Your task to perform on an android device: turn vacation reply on in the gmail app Image 0: 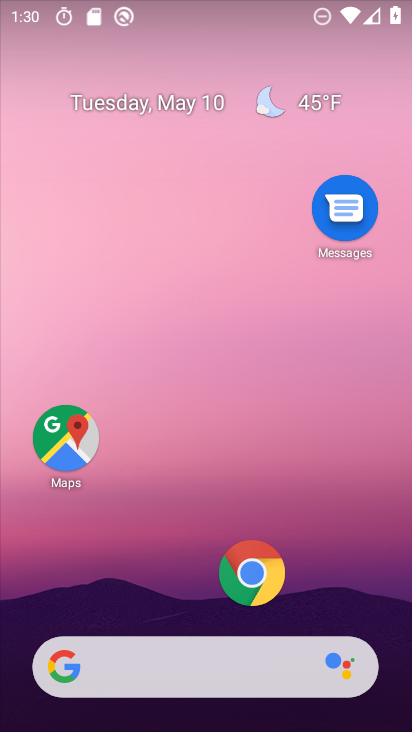
Step 0: drag from (196, 603) to (310, 125)
Your task to perform on an android device: turn vacation reply on in the gmail app Image 1: 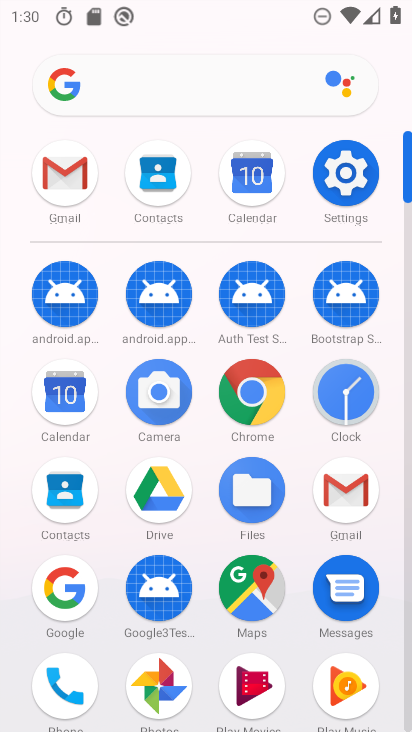
Step 1: click (330, 496)
Your task to perform on an android device: turn vacation reply on in the gmail app Image 2: 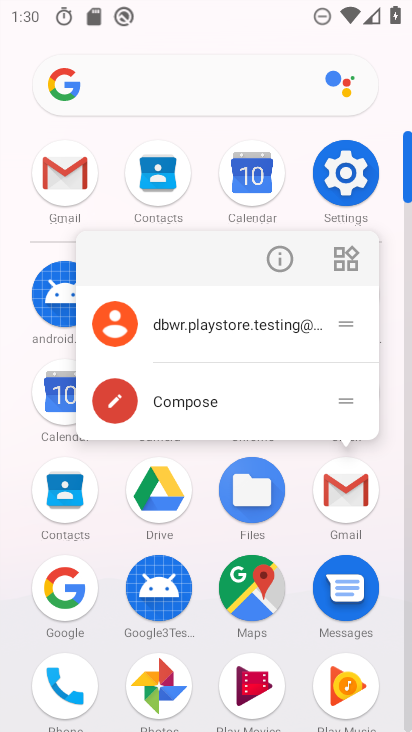
Step 2: click (288, 240)
Your task to perform on an android device: turn vacation reply on in the gmail app Image 3: 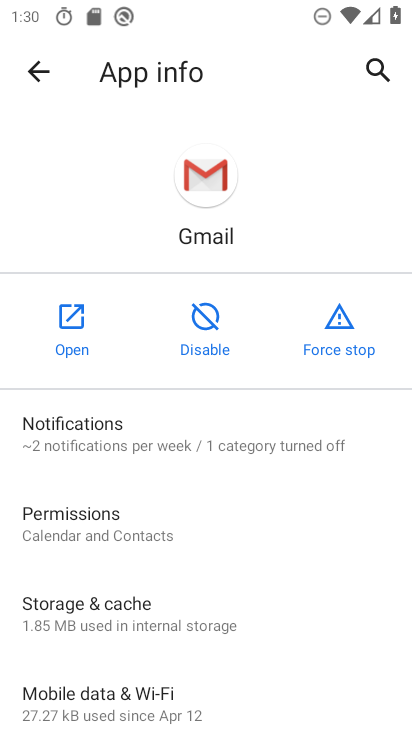
Step 3: click (86, 339)
Your task to perform on an android device: turn vacation reply on in the gmail app Image 4: 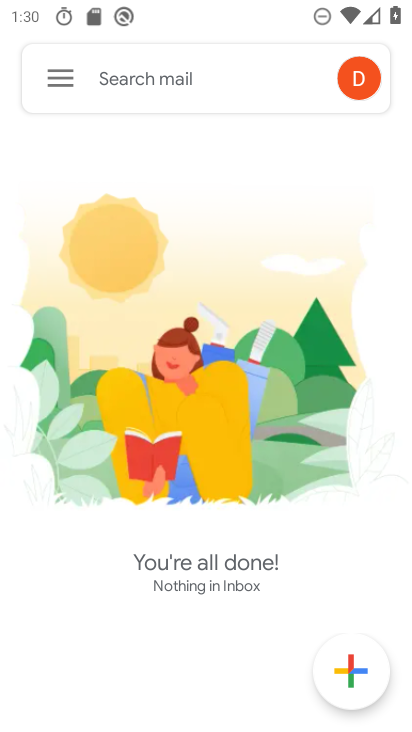
Step 4: drag from (204, 537) to (240, 271)
Your task to perform on an android device: turn vacation reply on in the gmail app Image 5: 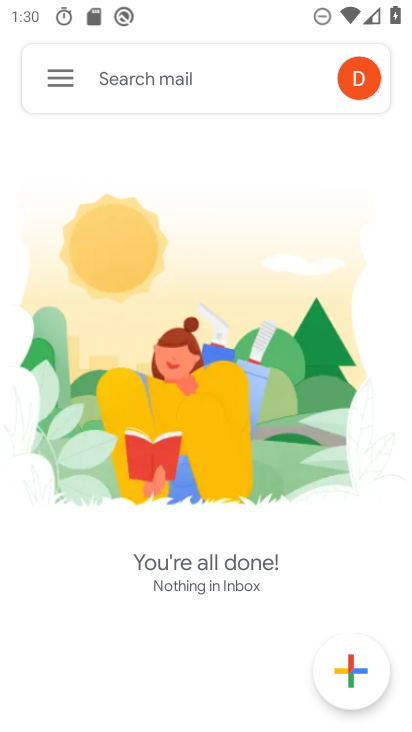
Step 5: click (48, 77)
Your task to perform on an android device: turn vacation reply on in the gmail app Image 6: 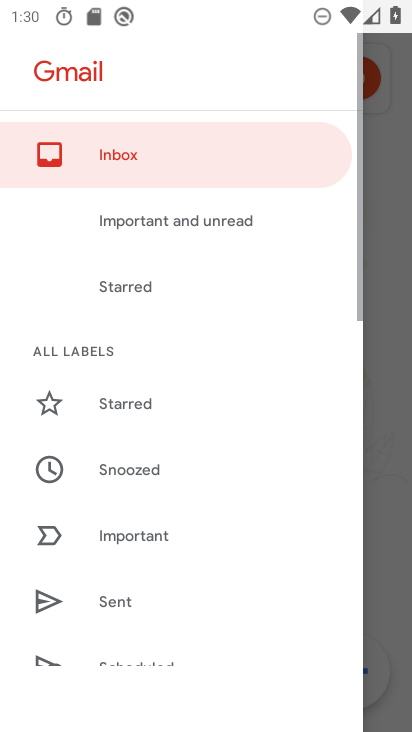
Step 6: drag from (142, 589) to (282, 46)
Your task to perform on an android device: turn vacation reply on in the gmail app Image 7: 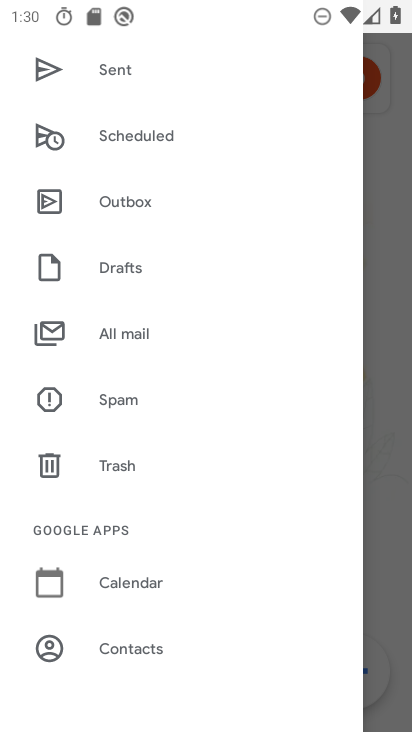
Step 7: drag from (108, 643) to (250, 155)
Your task to perform on an android device: turn vacation reply on in the gmail app Image 8: 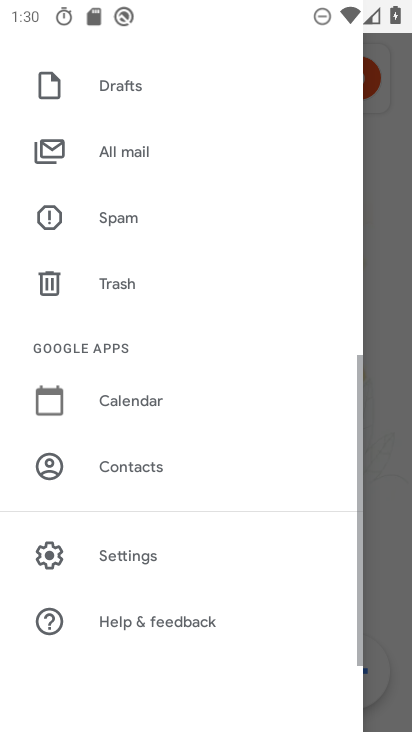
Step 8: click (151, 570)
Your task to perform on an android device: turn vacation reply on in the gmail app Image 9: 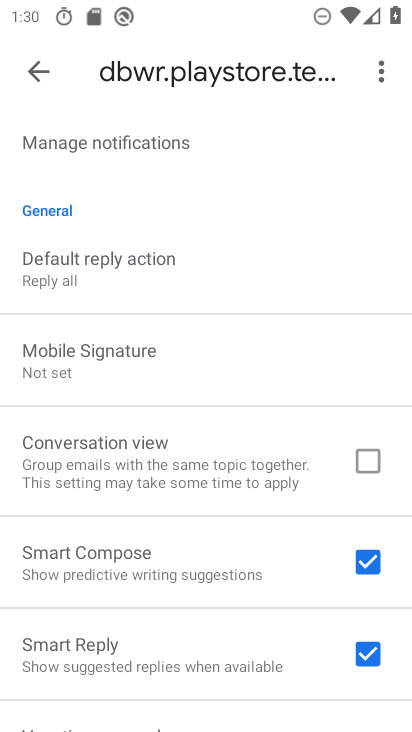
Step 9: drag from (146, 587) to (291, 66)
Your task to perform on an android device: turn vacation reply on in the gmail app Image 10: 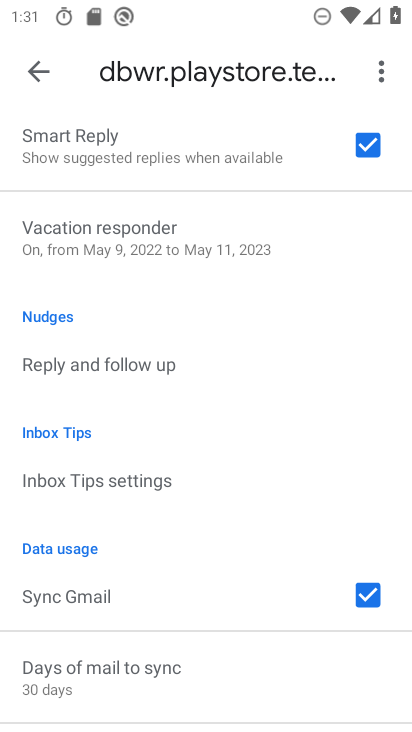
Step 10: click (127, 233)
Your task to perform on an android device: turn vacation reply on in the gmail app Image 11: 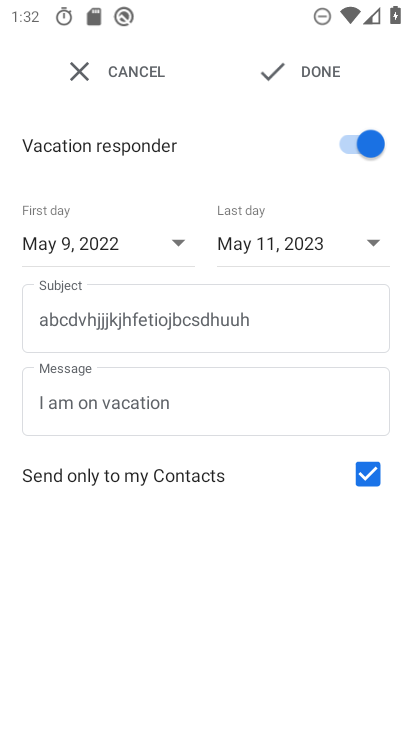
Step 11: click (281, 68)
Your task to perform on an android device: turn vacation reply on in the gmail app Image 12: 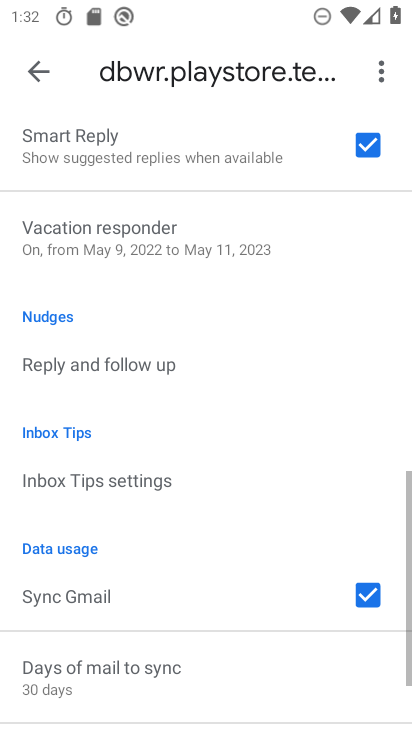
Step 12: task complete